Your task to perform on an android device: Is it going to rain this weekend? Image 0: 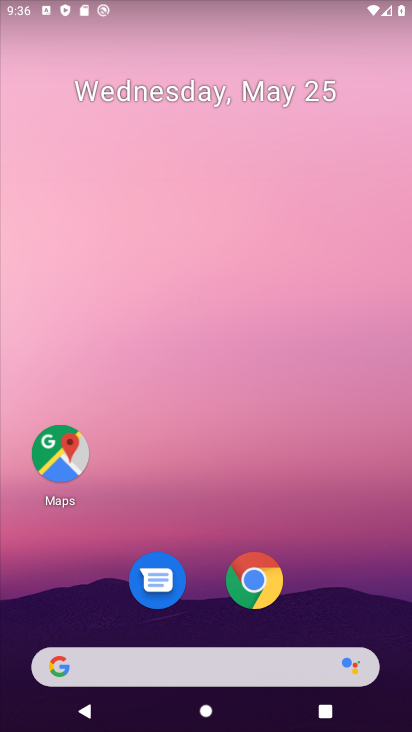
Step 0: press home button
Your task to perform on an android device: Is it going to rain this weekend? Image 1: 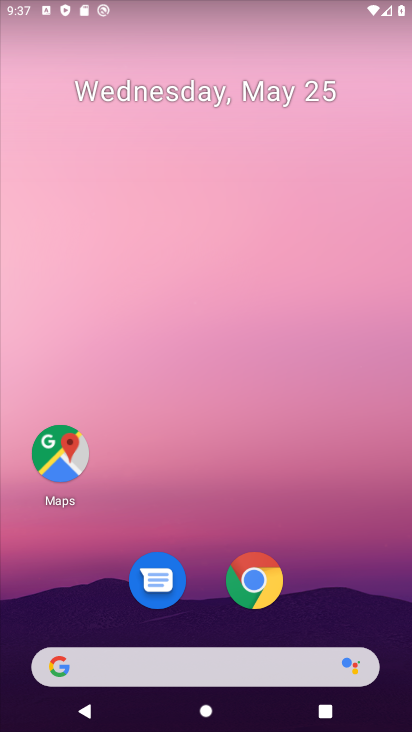
Step 1: click (126, 673)
Your task to perform on an android device: Is it going to rain this weekend? Image 2: 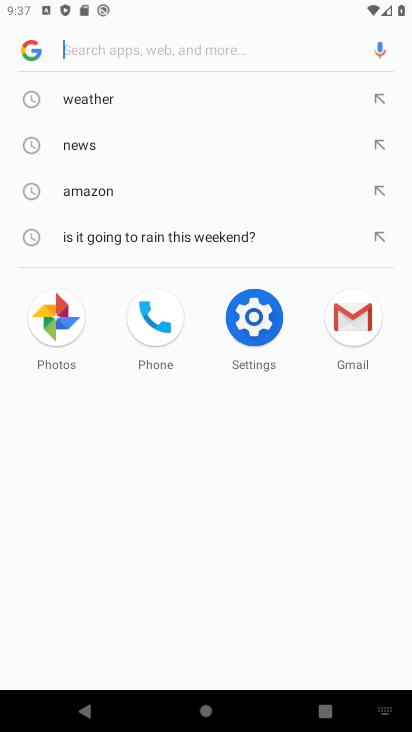
Step 2: click (120, 89)
Your task to perform on an android device: Is it going to rain this weekend? Image 3: 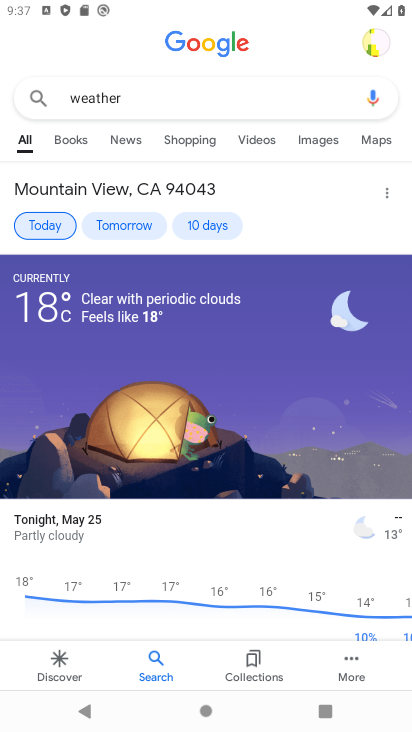
Step 3: click (201, 228)
Your task to perform on an android device: Is it going to rain this weekend? Image 4: 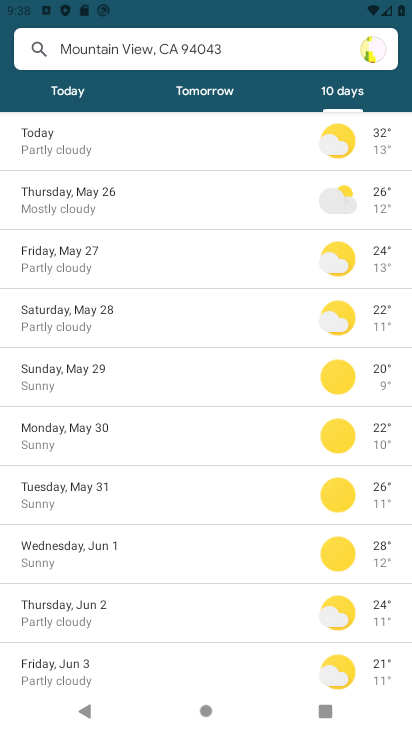
Step 4: task complete